Your task to perform on an android device: Open notification settings Image 0: 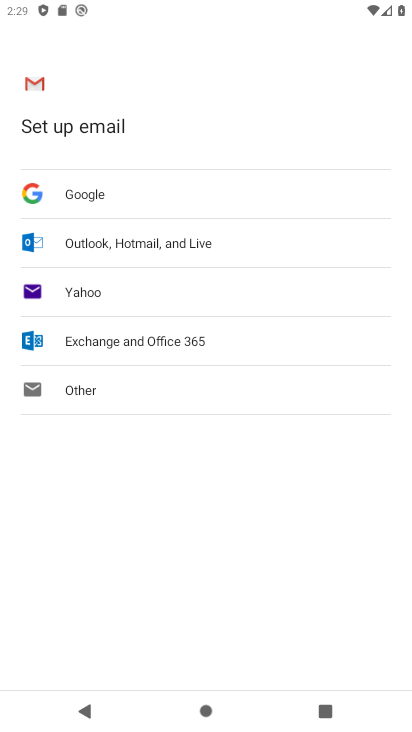
Step 0: press home button
Your task to perform on an android device: Open notification settings Image 1: 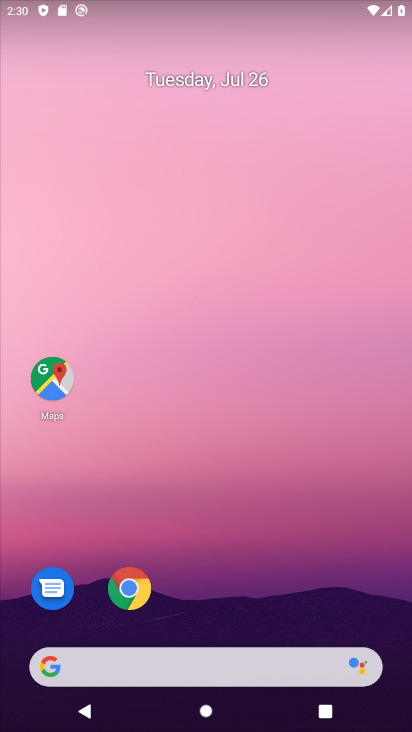
Step 1: drag from (243, 626) to (209, 92)
Your task to perform on an android device: Open notification settings Image 2: 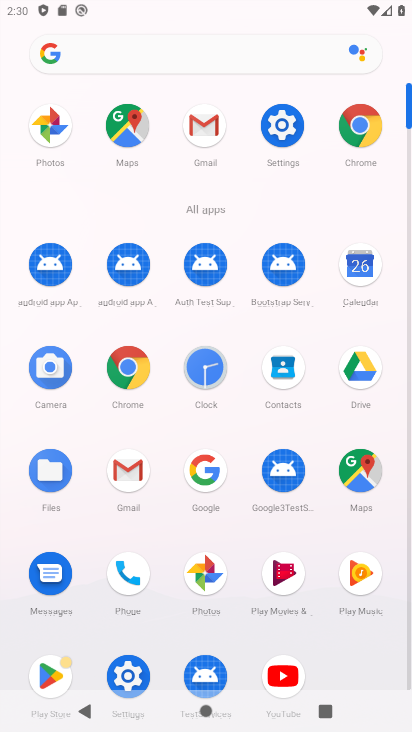
Step 2: click (282, 133)
Your task to perform on an android device: Open notification settings Image 3: 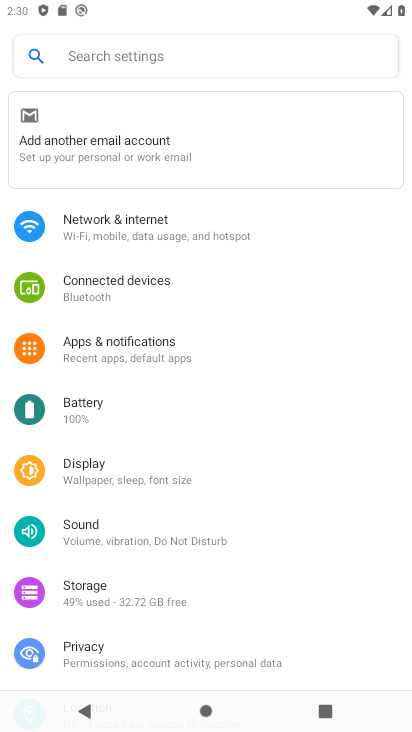
Step 3: click (173, 354)
Your task to perform on an android device: Open notification settings Image 4: 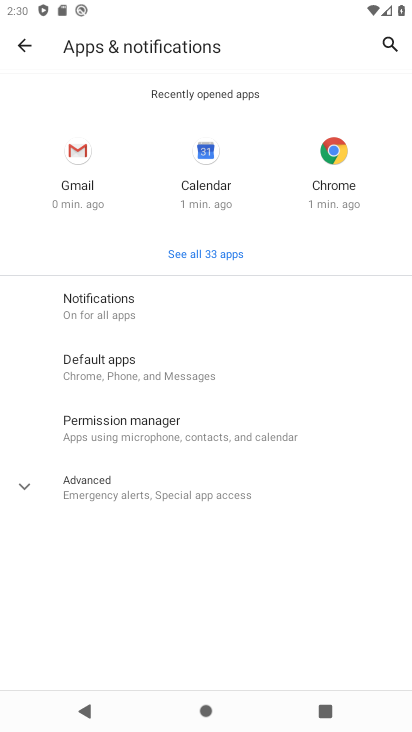
Step 4: click (218, 302)
Your task to perform on an android device: Open notification settings Image 5: 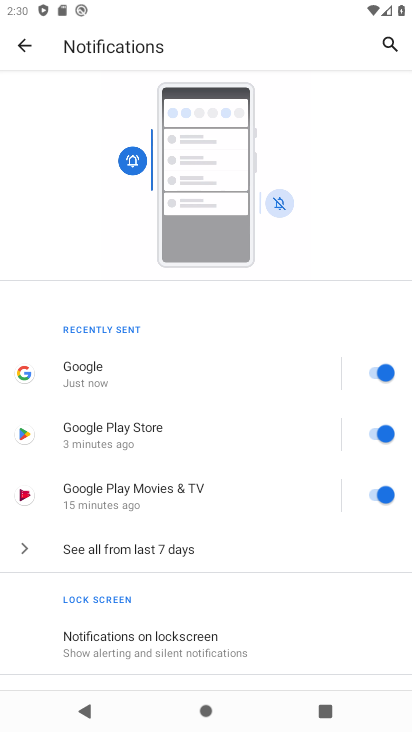
Step 5: task complete